Your task to perform on an android device: Go to Amazon Image 0: 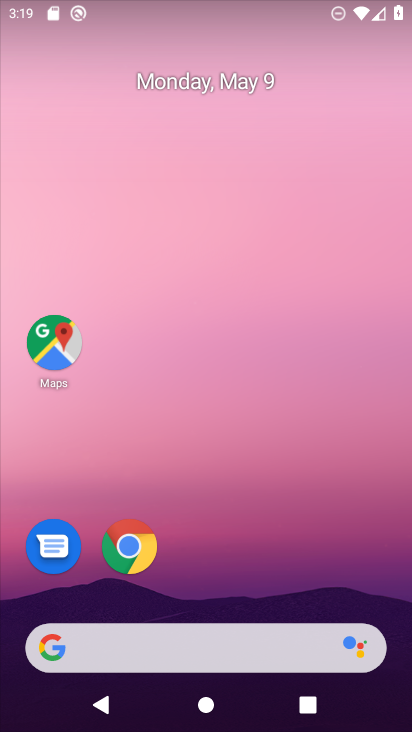
Step 0: click (140, 545)
Your task to perform on an android device: Go to Amazon Image 1: 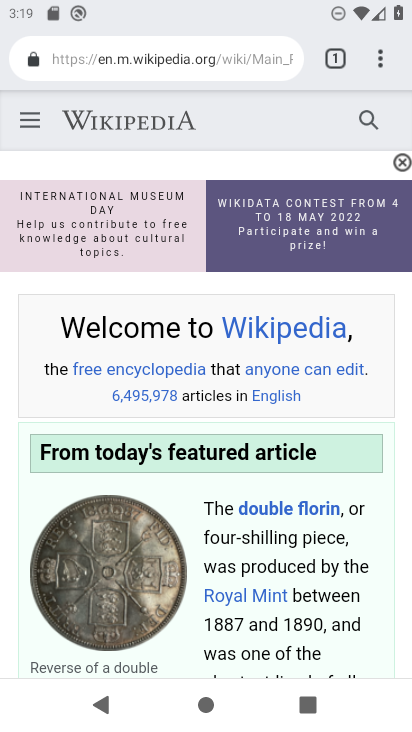
Step 1: drag from (239, 49) to (211, 234)
Your task to perform on an android device: Go to Amazon Image 2: 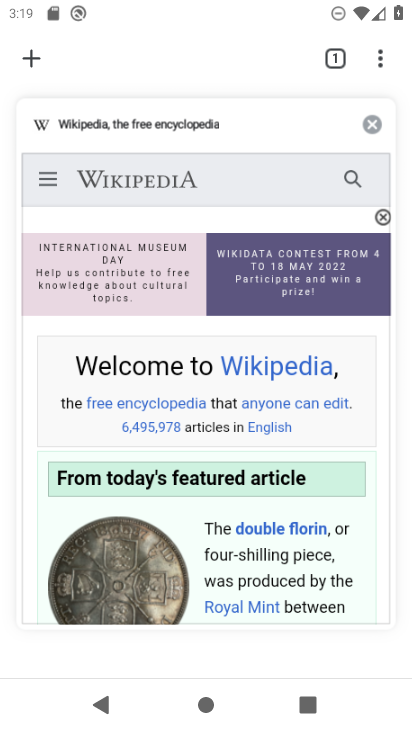
Step 2: click (36, 52)
Your task to perform on an android device: Go to Amazon Image 3: 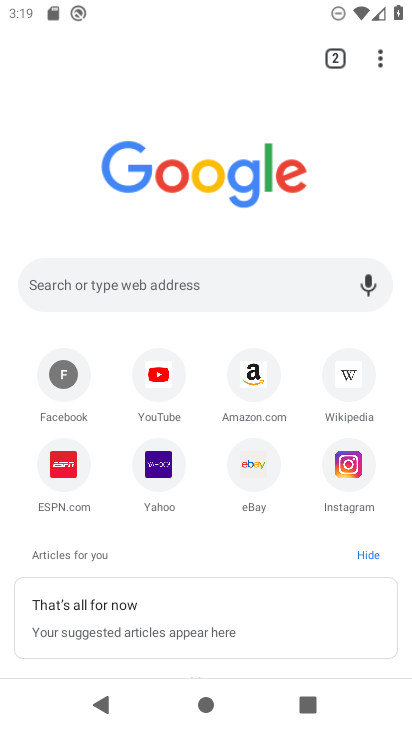
Step 3: click (260, 374)
Your task to perform on an android device: Go to Amazon Image 4: 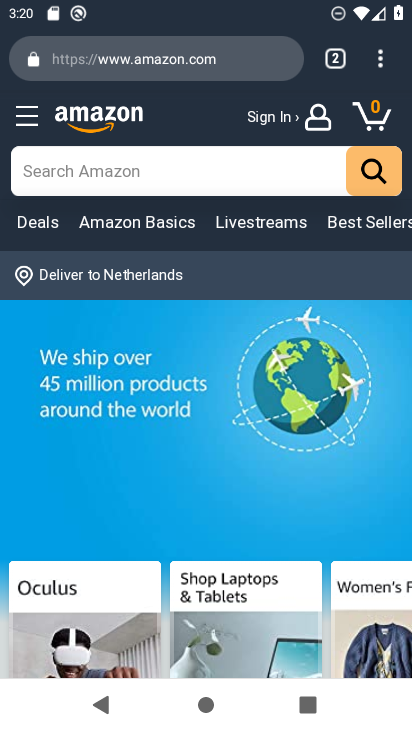
Step 4: task complete